Your task to perform on an android device: Go to Yahoo.com Image 0: 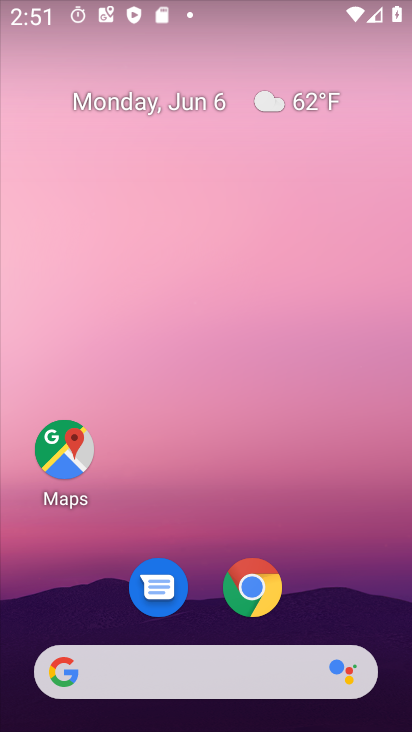
Step 0: drag from (360, 583) to (278, 0)
Your task to perform on an android device: Go to Yahoo.com Image 1: 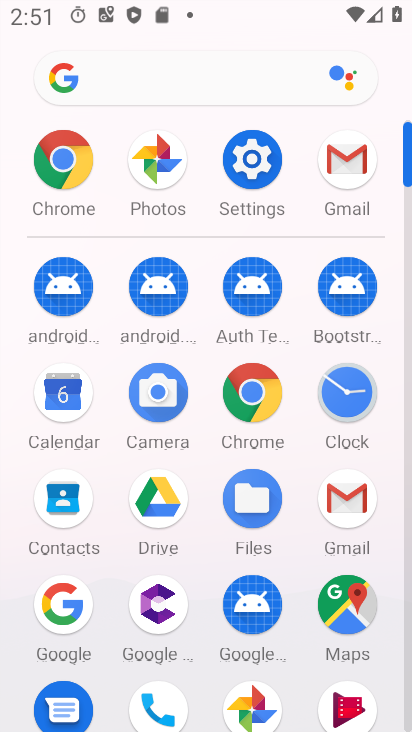
Step 1: click (63, 152)
Your task to perform on an android device: Go to Yahoo.com Image 2: 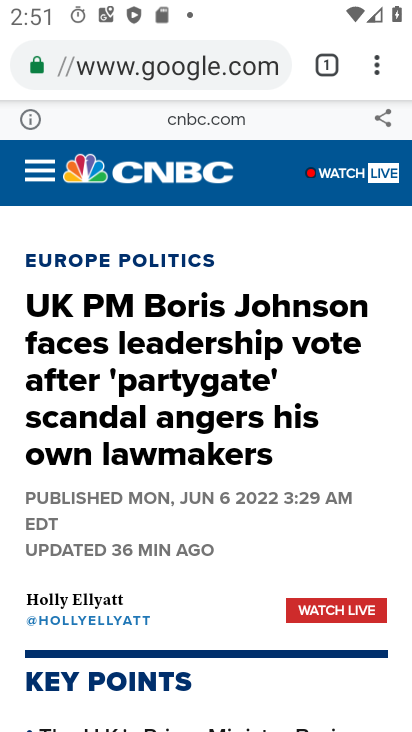
Step 2: click (162, 49)
Your task to perform on an android device: Go to Yahoo.com Image 3: 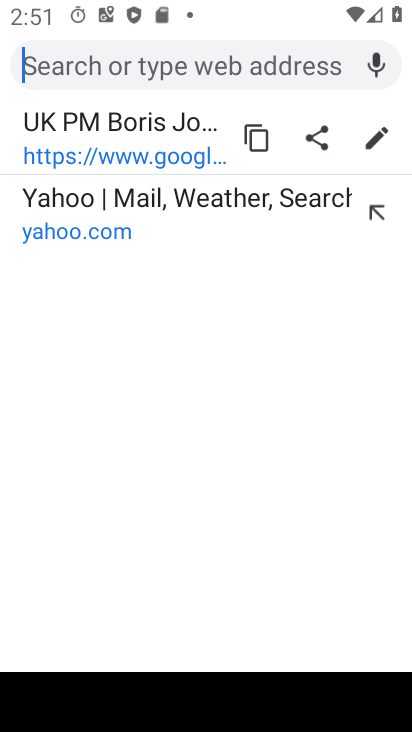
Step 3: click (160, 205)
Your task to perform on an android device: Go to Yahoo.com Image 4: 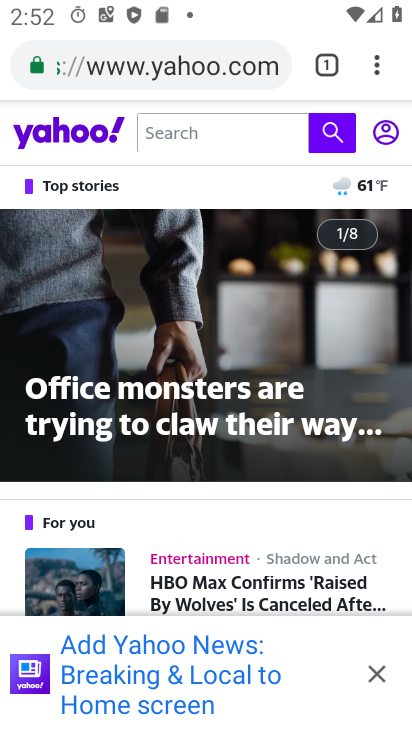
Step 4: click (369, 684)
Your task to perform on an android device: Go to Yahoo.com Image 5: 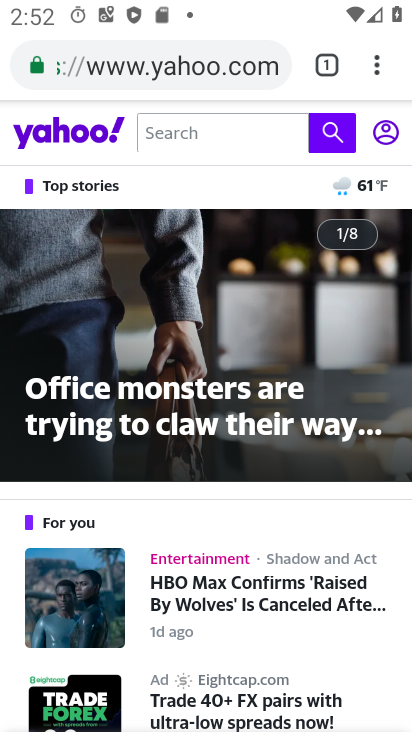
Step 5: task complete